Your task to perform on an android device: toggle data saver in the chrome app Image 0: 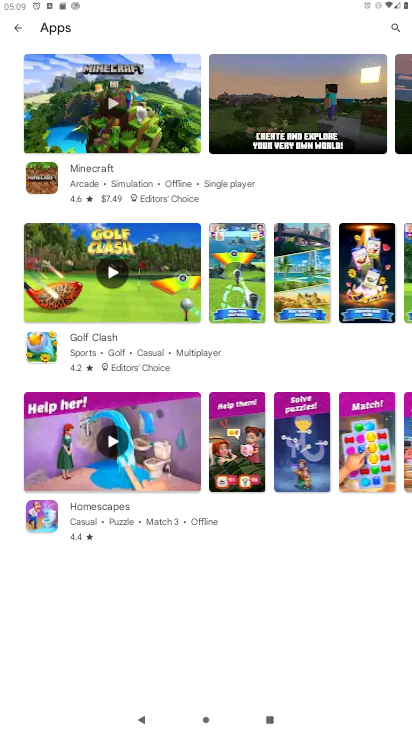
Step 0: press home button
Your task to perform on an android device: toggle data saver in the chrome app Image 1: 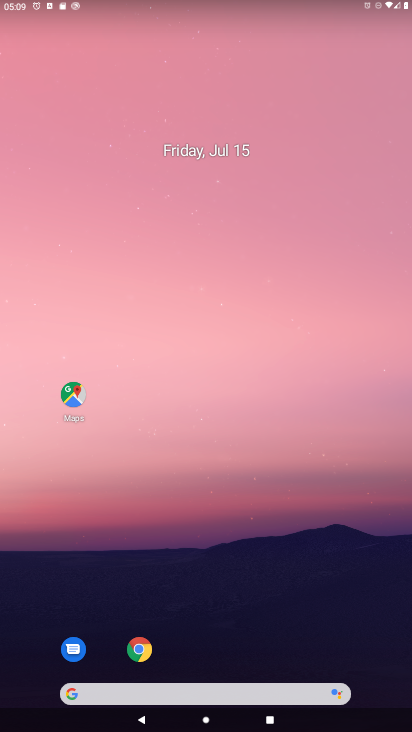
Step 1: click (138, 649)
Your task to perform on an android device: toggle data saver in the chrome app Image 2: 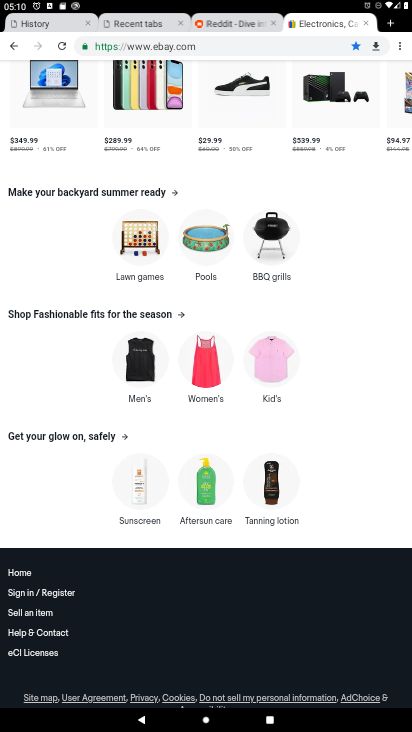
Step 2: click (400, 46)
Your task to perform on an android device: toggle data saver in the chrome app Image 3: 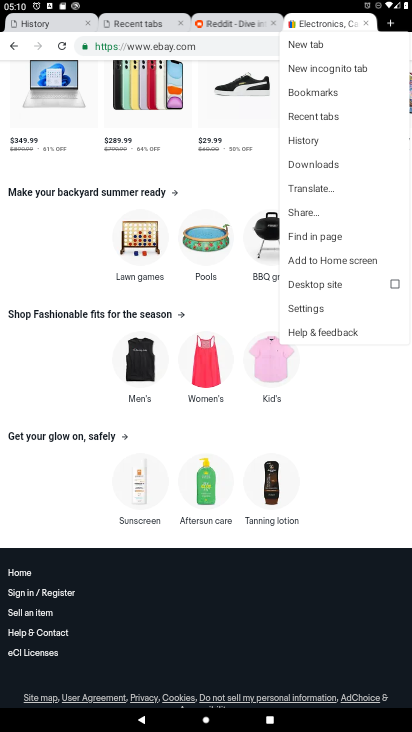
Step 3: click (297, 306)
Your task to perform on an android device: toggle data saver in the chrome app Image 4: 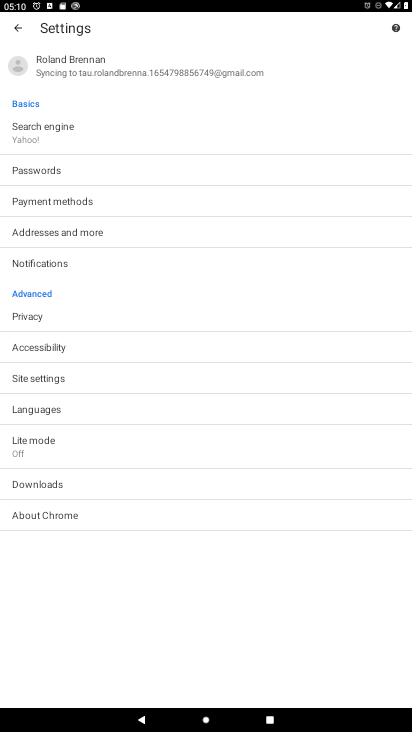
Step 4: click (43, 448)
Your task to perform on an android device: toggle data saver in the chrome app Image 5: 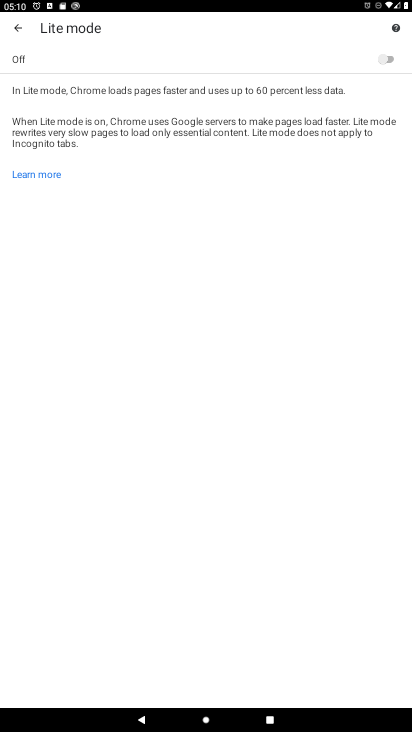
Step 5: click (388, 59)
Your task to perform on an android device: toggle data saver in the chrome app Image 6: 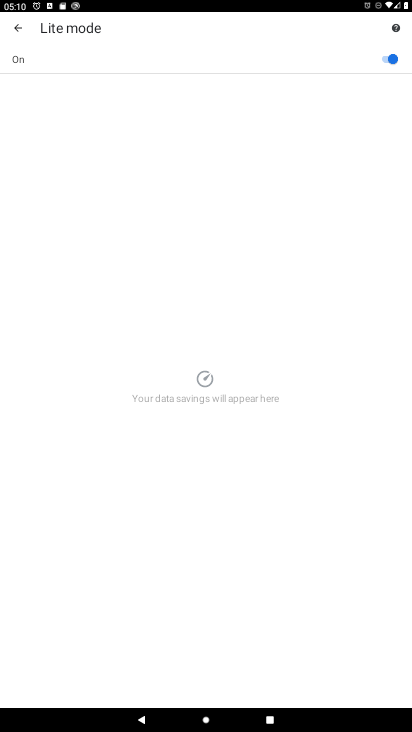
Step 6: task complete